Your task to perform on an android device: Do I have any events this weekend? Image 0: 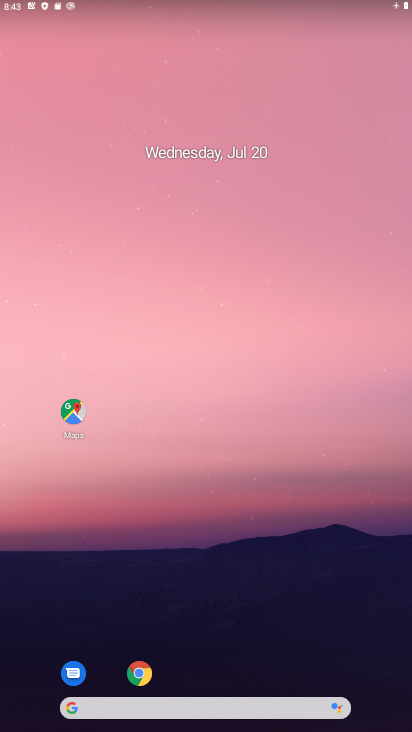
Step 0: drag from (227, 724) to (228, 229)
Your task to perform on an android device: Do I have any events this weekend? Image 1: 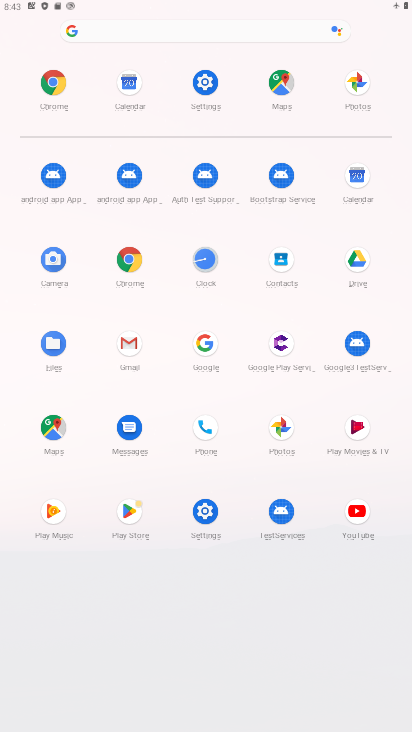
Step 1: click (357, 180)
Your task to perform on an android device: Do I have any events this weekend? Image 2: 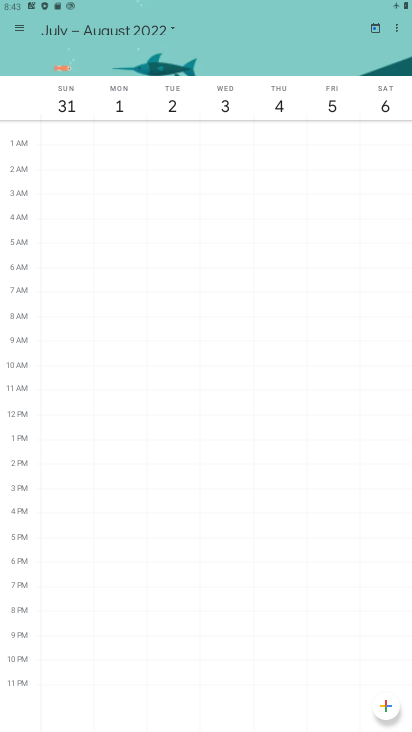
Step 2: click (388, 98)
Your task to perform on an android device: Do I have any events this weekend? Image 3: 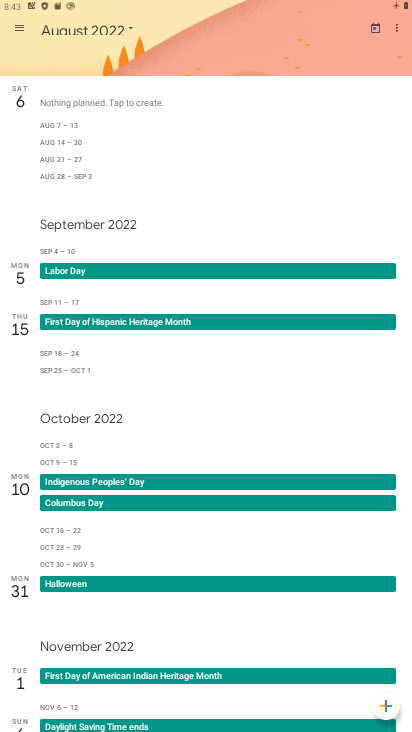
Step 3: click (17, 30)
Your task to perform on an android device: Do I have any events this weekend? Image 4: 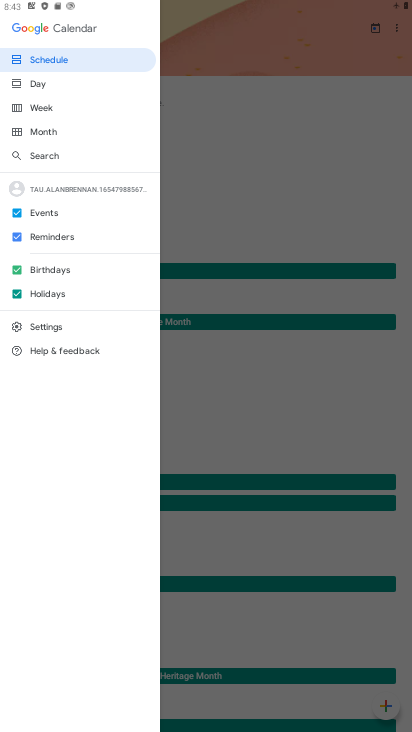
Step 4: click (19, 292)
Your task to perform on an android device: Do I have any events this weekend? Image 5: 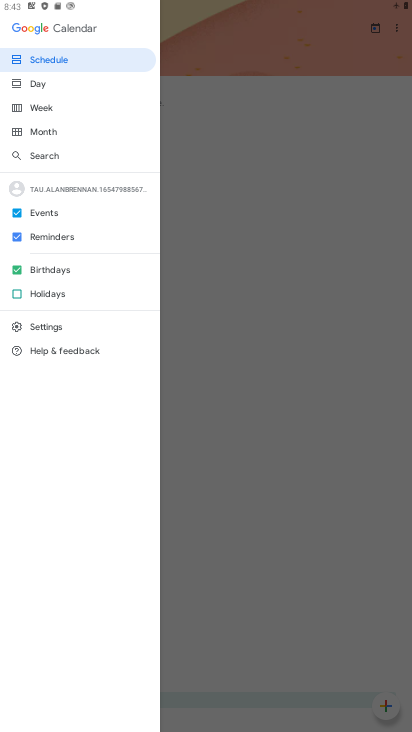
Step 5: click (13, 267)
Your task to perform on an android device: Do I have any events this weekend? Image 6: 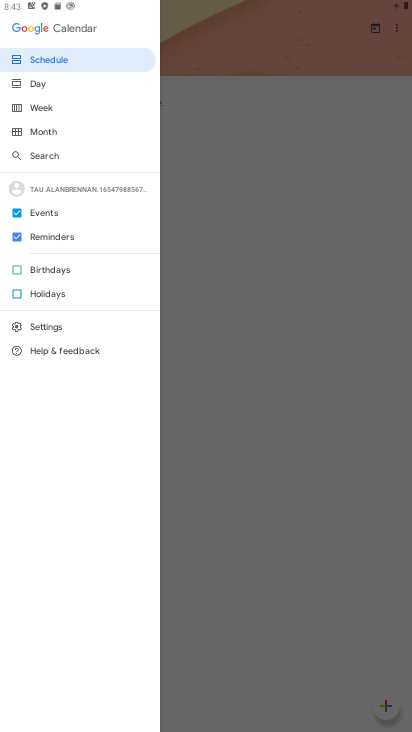
Step 6: click (19, 236)
Your task to perform on an android device: Do I have any events this weekend? Image 7: 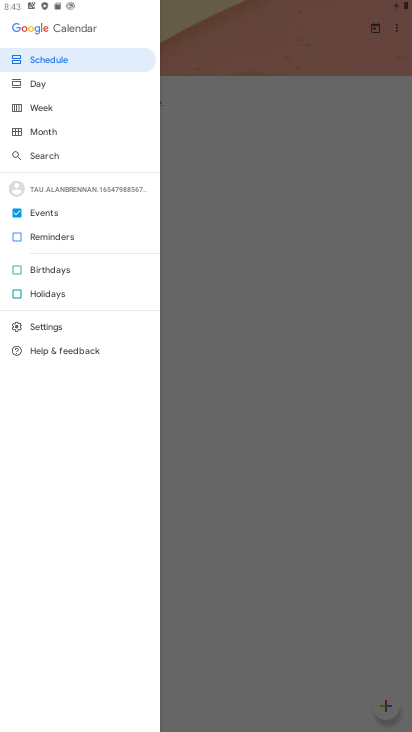
Step 7: click (303, 185)
Your task to perform on an android device: Do I have any events this weekend? Image 8: 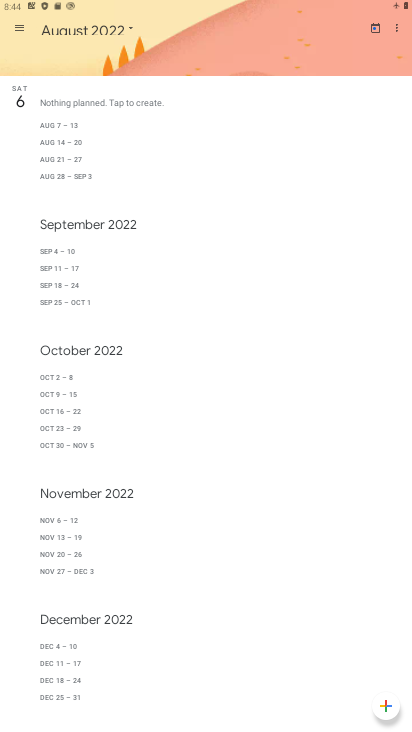
Step 8: task complete